Your task to perform on an android device: Show me popular games on the Play Store Image 0: 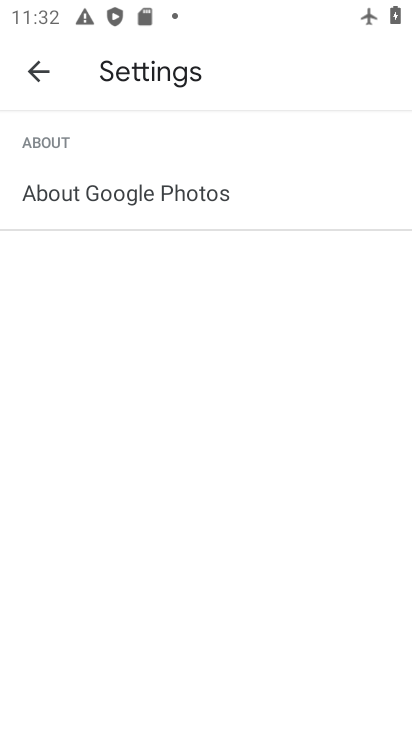
Step 0: drag from (342, 485) to (302, 199)
Your task to perform on an android device: Show me popular games on the Play Store Image 1: 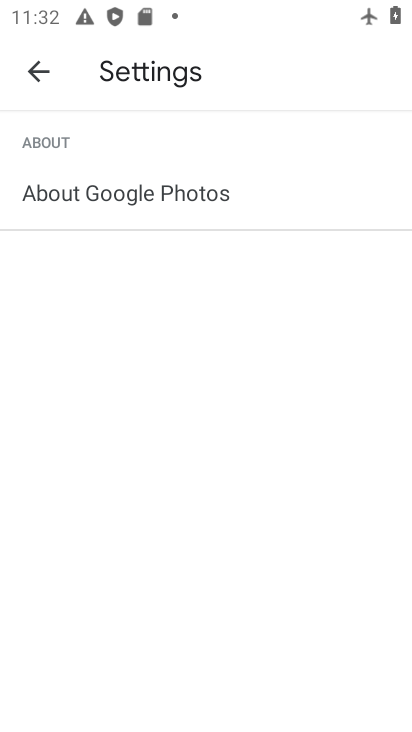
Step 1: press home button
Your task to perform on an android device: Show me popular games on the Play Store Image 2: 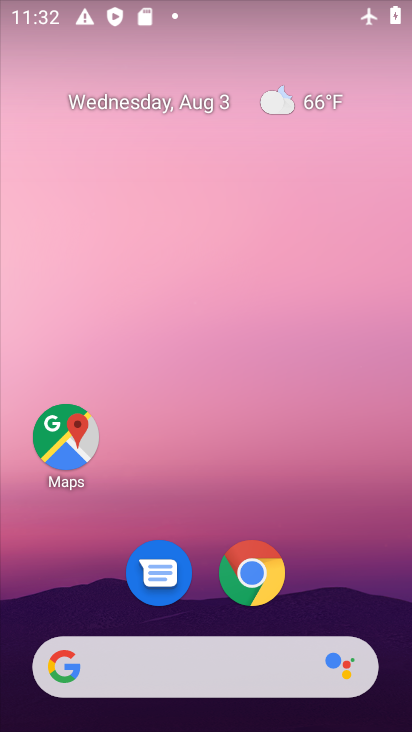
Step 2: drag from (334, 549) to (225, 74)
Your task to perform on an android device: Show me popular games on the Play Store Image 3: 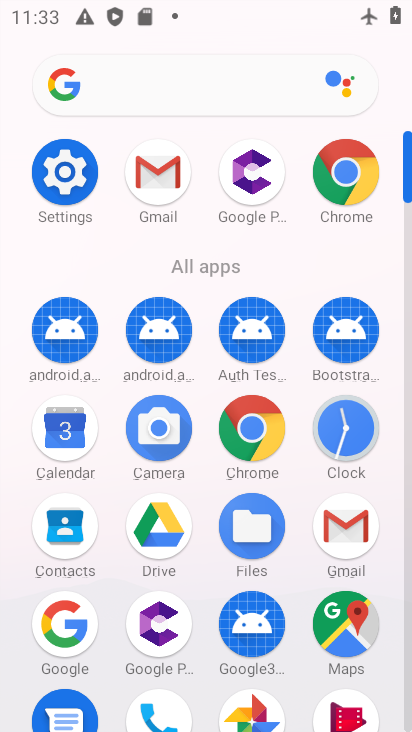
Step 3: drag from (303, 570) to (306, 259)
Your task to perform on an android device: Show me popular games on the Play Store Image 4: 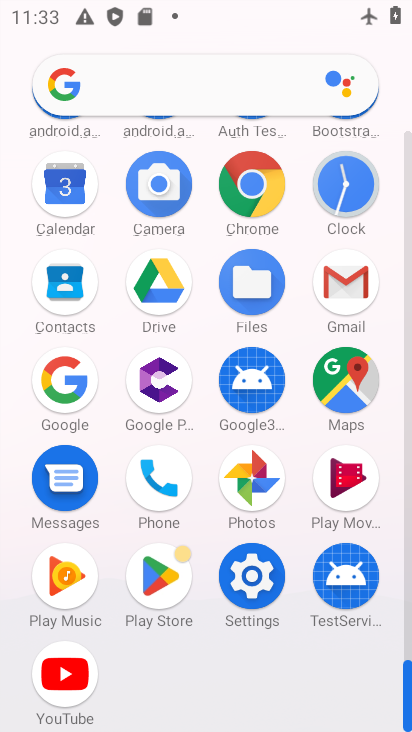
Step 4: click (135, 577)
Your task to perform on an android device: Show me popular games on the Play Store Image 5: 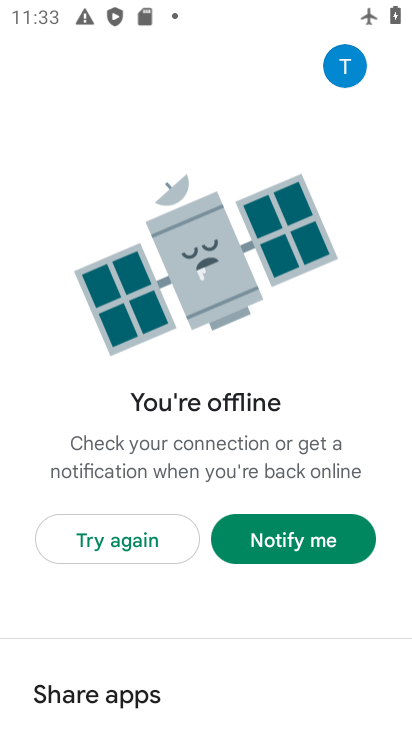
Step 5: task complete